Your task to perform on an android device: Show me popular games on the Play Store Image 0: 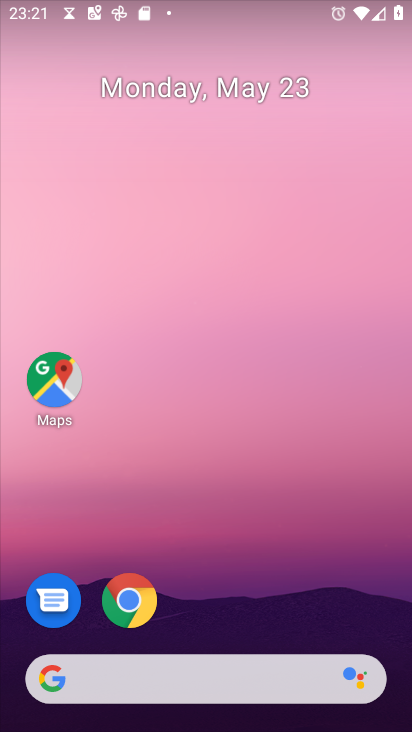
Step 0: drag from (221, 724) to (221, 207)
Your task to perform on an android device: Show me popular games on the Play Store Image 1: 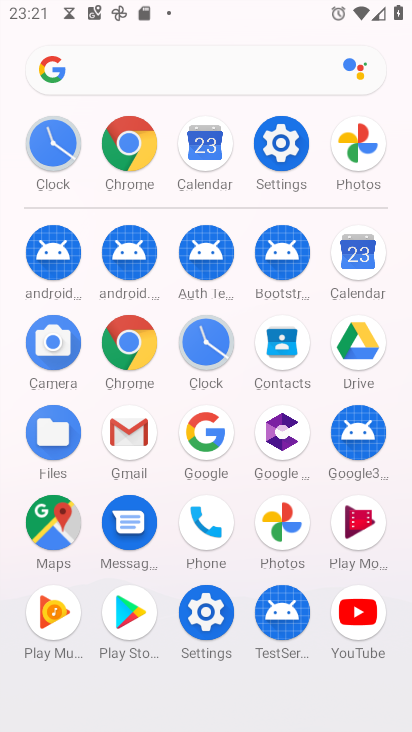
Step 1: click (131, 613)
Your task to perform on an android device: Show me popular games on the Play Store Image 2: 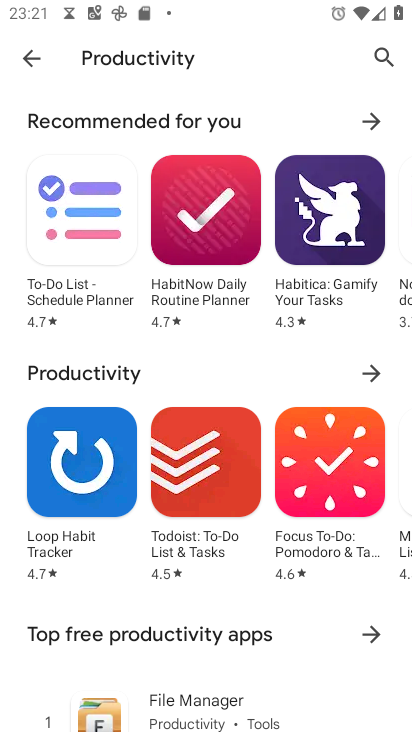
Step 2: drag from (234, 664) to (215, 331)
Your task to perform on an android device: Show me popular games on the Play Store Image 3: 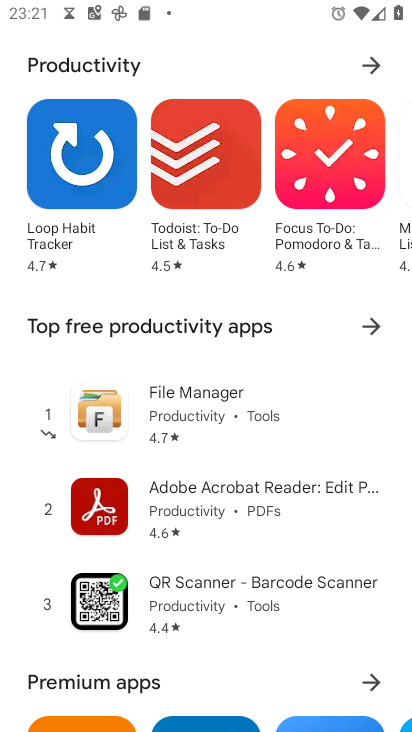
Step 3: drag from (182, 85) to (182, 583)
Your task to perform on an android device: Show me popular games on the Play Store Image 4: 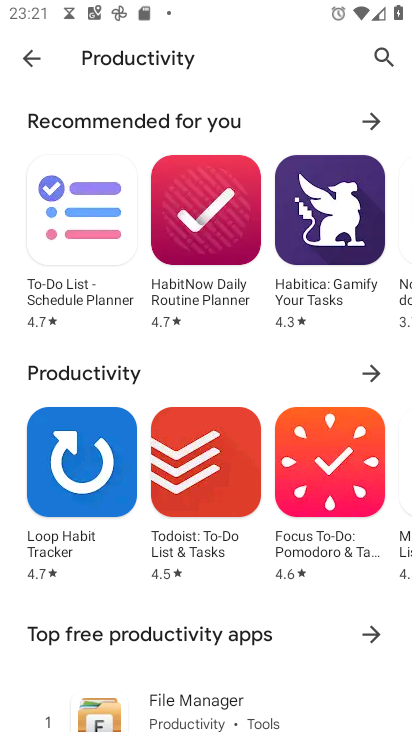
Step 4: click (30, 58)
Your task to perform on an android device: Show me popular games on the Play Store Image 5: 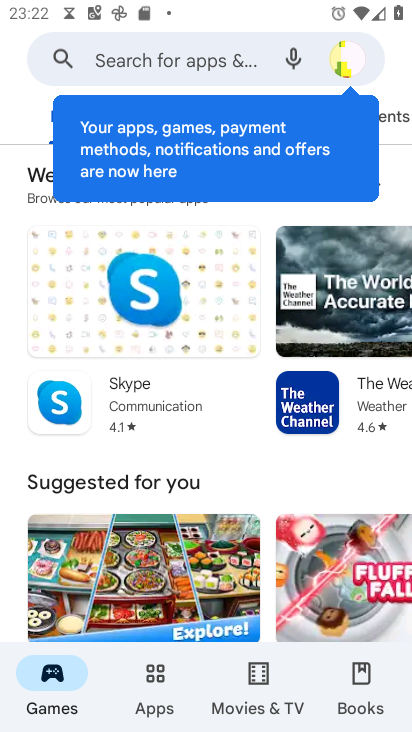
Step 5: drag from (210, 589) to (190, 283)
Your task to perform on an android device: Show me popular games on the Play Store Image 6: 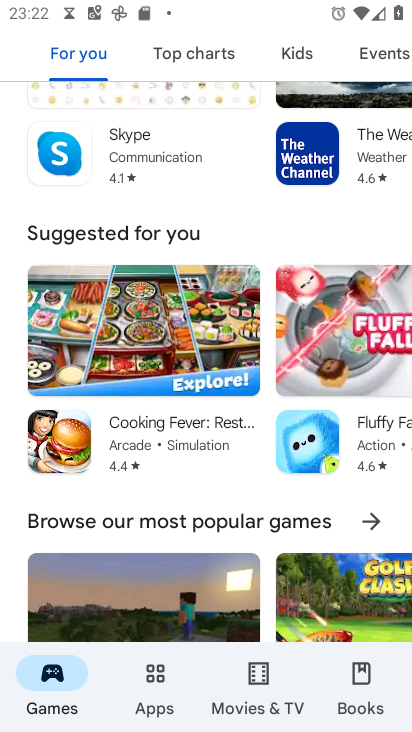
Step 6: drag from (241, 594) to (224, 405)
Your task to perform on an android device: Show me popular games on the Play Store Image 7: 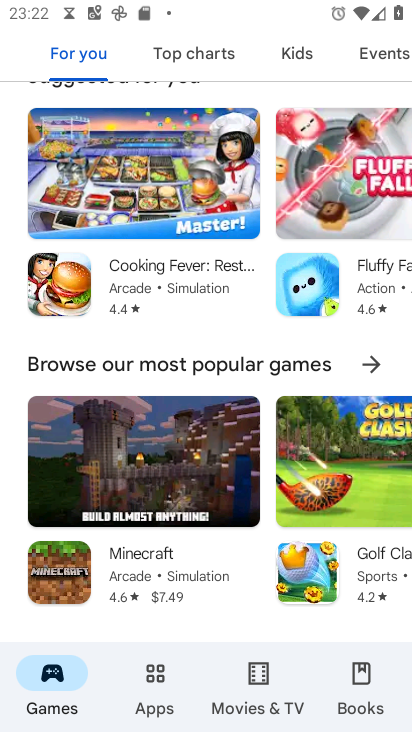
Step 7: click (368, 361)
Your task to perform on an android device: Show me popular games on the Play Store Image 8: 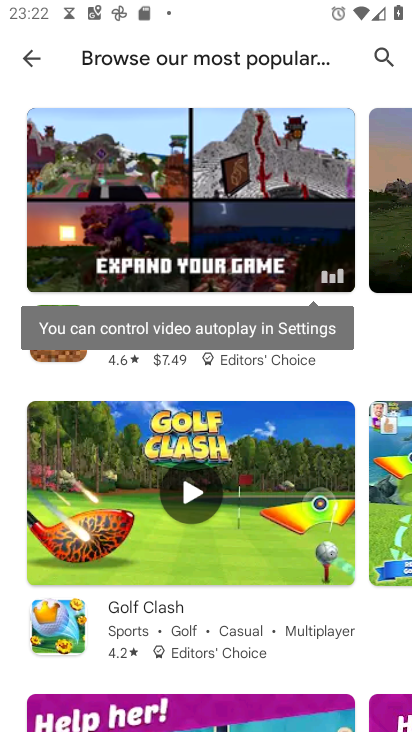
Step 8: task complete